Your task to perform on an android device: delete a single message in the gmail app Image 0: 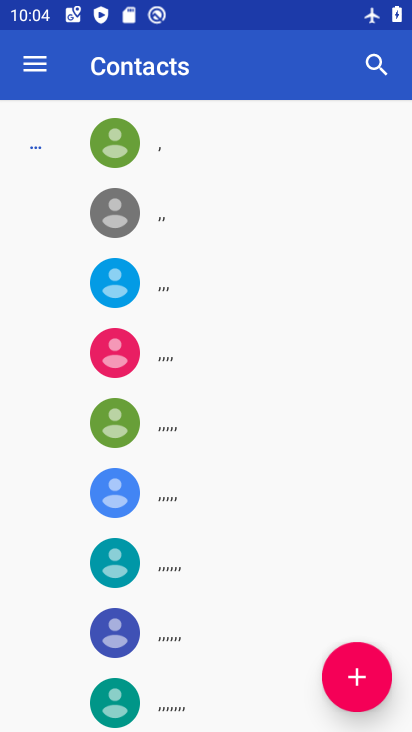
Step 0: press home button
Your task to perform on an android device: delete a single message in the gmail app Image 1: 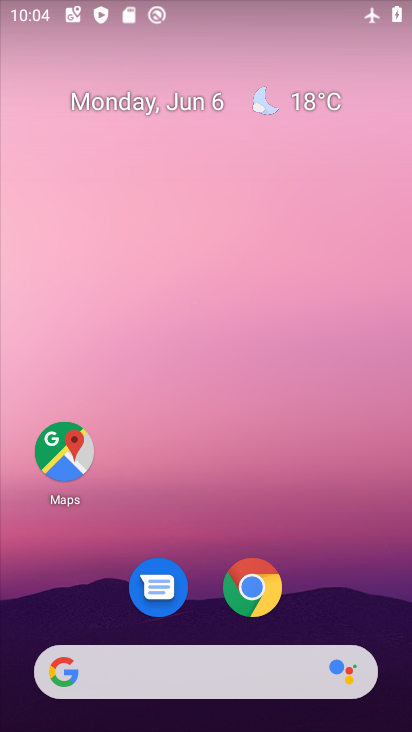
Step 1: drag from (322, 481) to (296, 87)
Your task to perform on an android device: delete a single message in the gmail app Image 2: 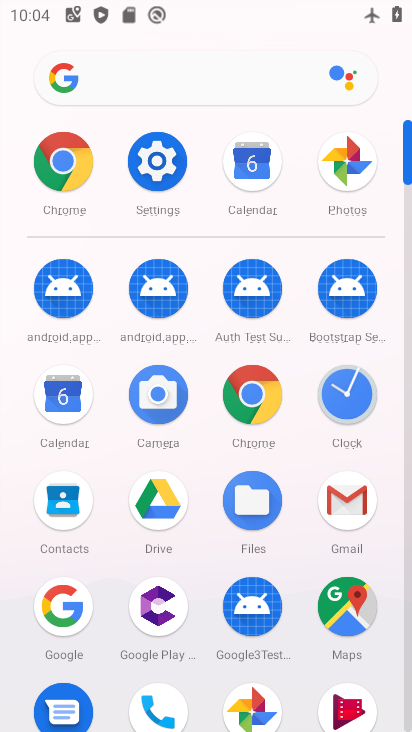
Step 2: click (344, 514)
Your task to perform on an android device: delete a single message in the gmail app Image 3: 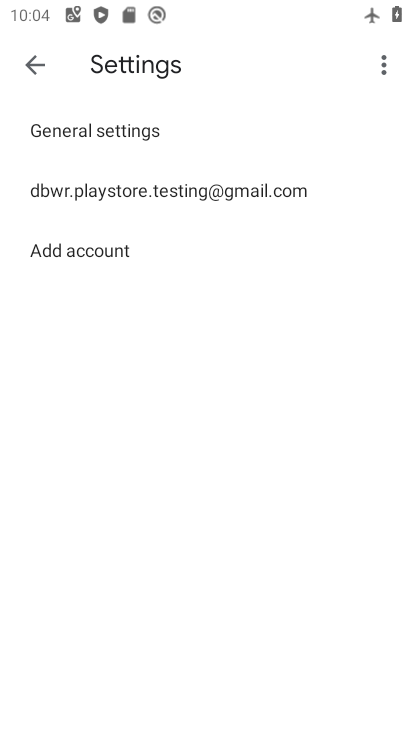
Step 3: click (31, 64)
Your task to perform on an android device: delete a single message in the gmail app Image 4: 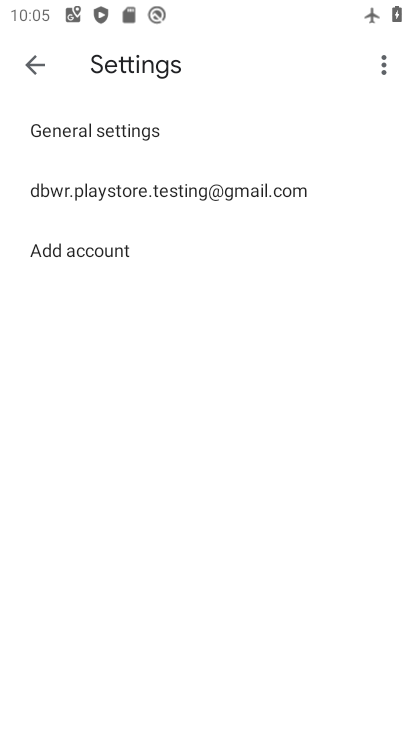
Step 4: click (38, 63)
Your task to perform on an android device: delete a single message in the gmail app Image 5: 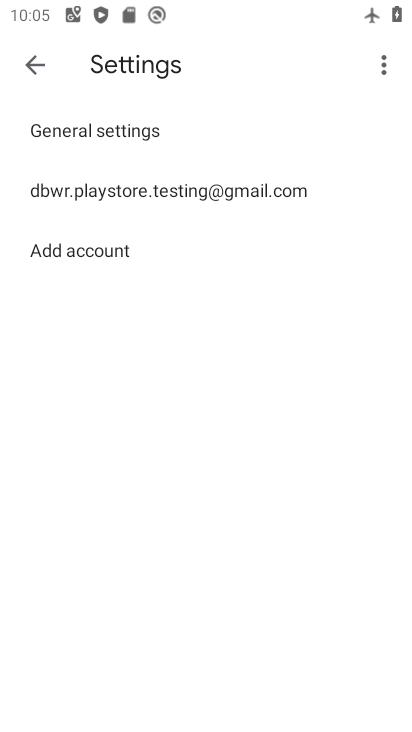
Step 5: click (38, 63)
Your task to perform on an android device: delete a single message in the gmail app Image 6: 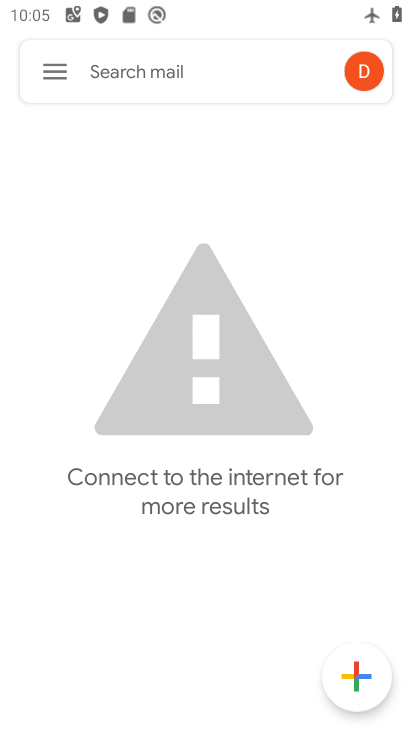
Step 6: click (38, 63)
Your task to perform on an android device: delete a single message in the gmail app Image 7: 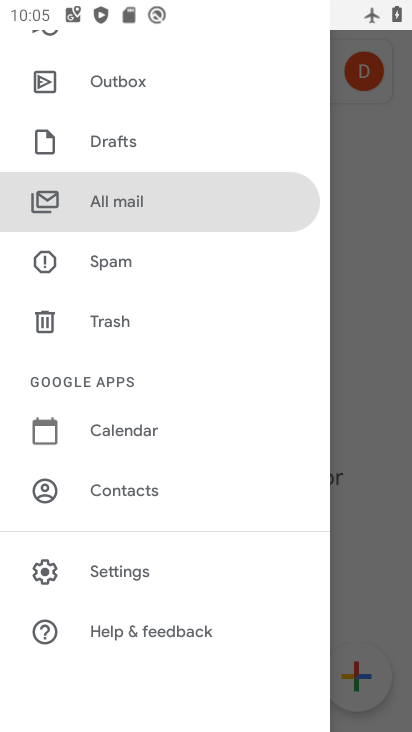
Step 7: click (157, 211)
Your task to perform on an android device: delete a single message in the gmail app Image 8: 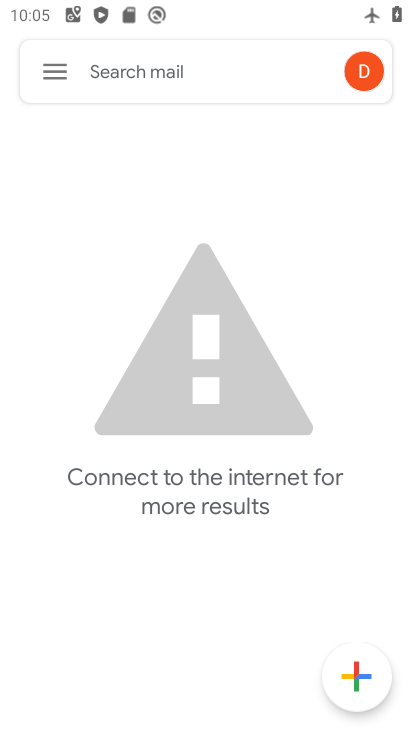
Step 8: task complete